Your task to perform on an android device: Open wifi settings Image 0: 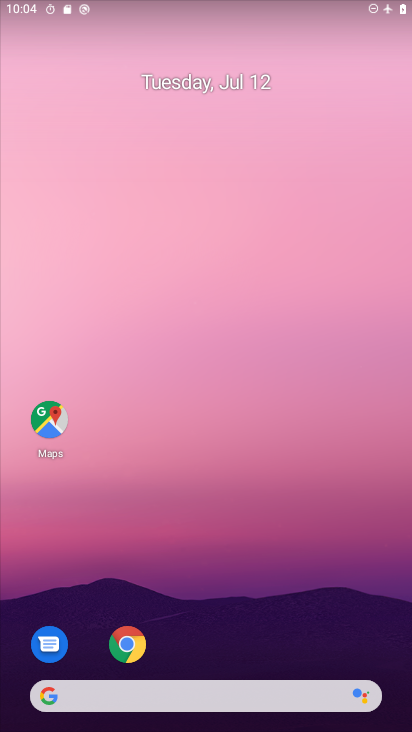
Step 0: drag from (239, 652) to (206, 265)
Your task to perform on an android device: Open wifi settings Image 1: 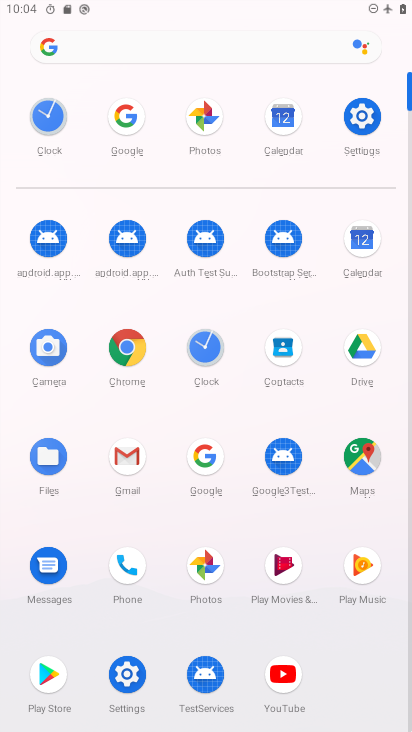
Step 1: click (333, 112)
Your task to perform on an android device: Open wifi settings Image 2: 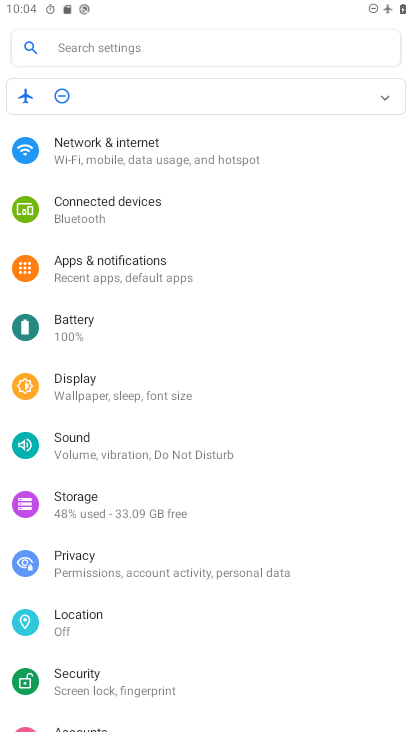
Step 2: click (125, 130)
Your task to perform on an android device: Open wifi settings Image 3: 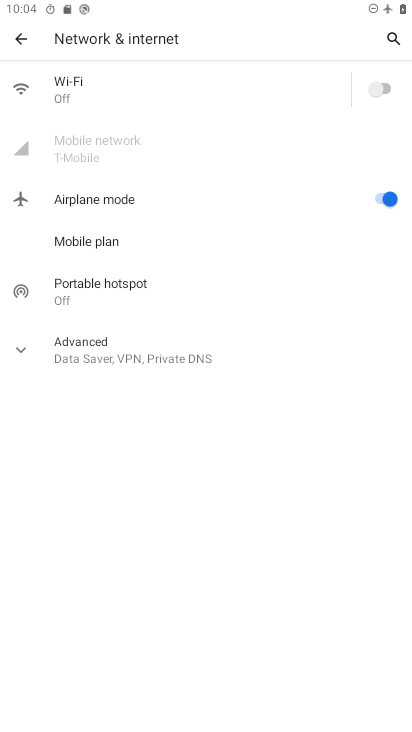
Step 3: click (152, 89)
Your task to perform on an android device: Open wifi settings Image 4: 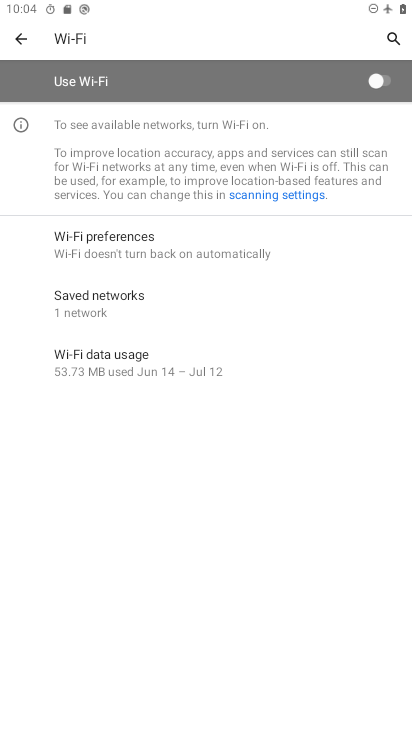
Step 4: task complete